Your task to perform on an android device: move a message to another label in the gmail app Image 0: 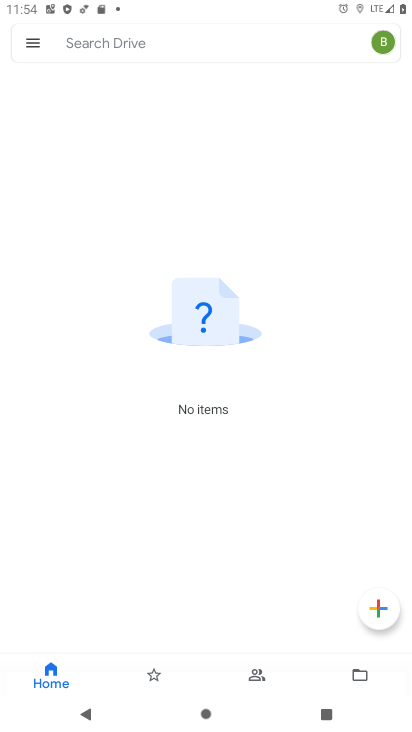
Step 0: press home button
Your task to perform on an android device: move a message to another label in the gmail app Image 1: 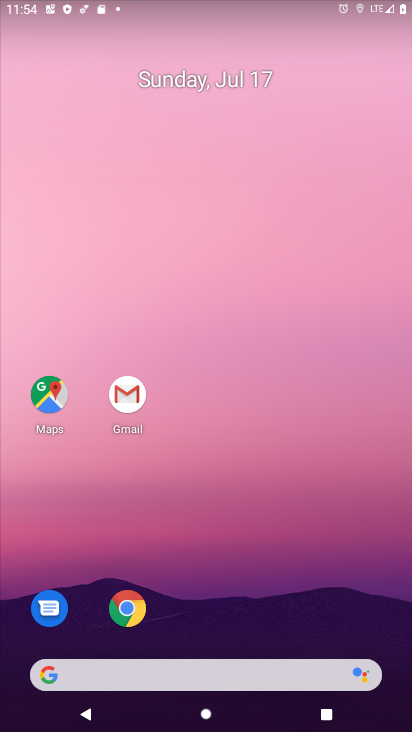
Step 1: drag from (191, 662) to (178, 138)
Your task to perform on an android device: move a message to another label in the gmail app Image 2: 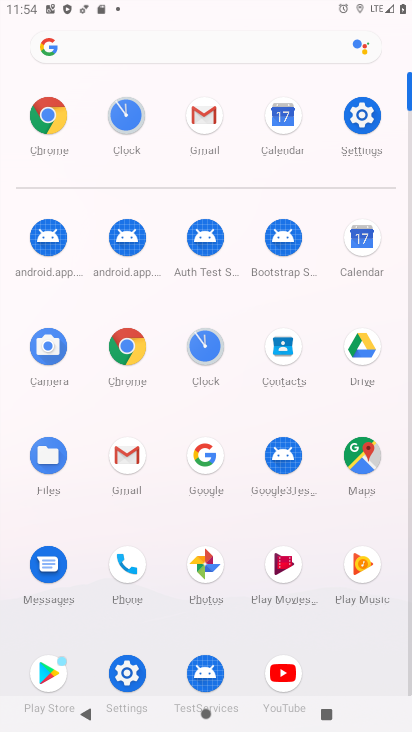
Step 2: click (135, 466)
Your task to perform on an android device: move a message to another label in the gmail app Image 3: 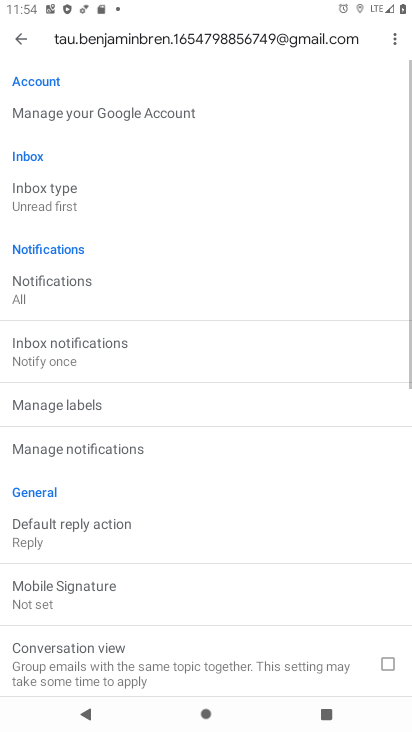
Step 3: click (22, 53)
Your task to perform on an android device: move a message to another label in the gmail app Image 4: 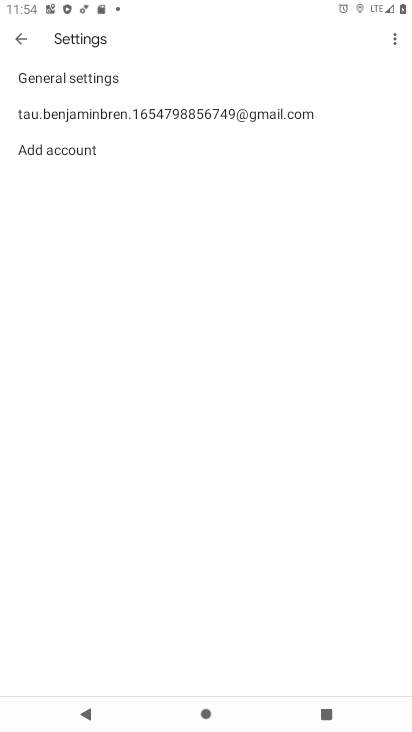
Step 4: click (22, 36)
Your task to perform on an android device: move a message to another label in the gmail app Image 5: 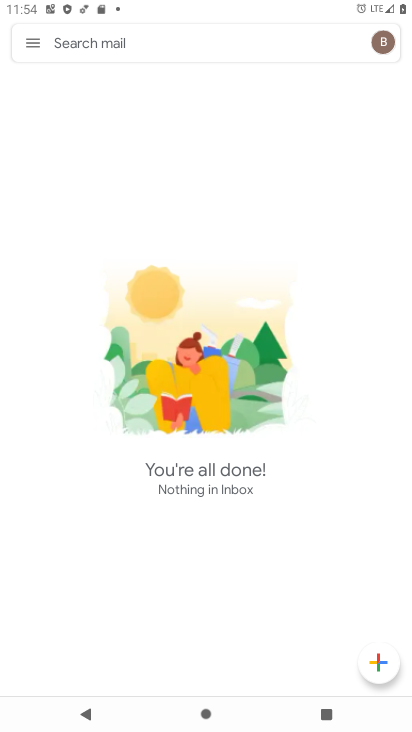
Step 5: task complete